Your task to perform on an android device: Open Wikipedia Image 0: 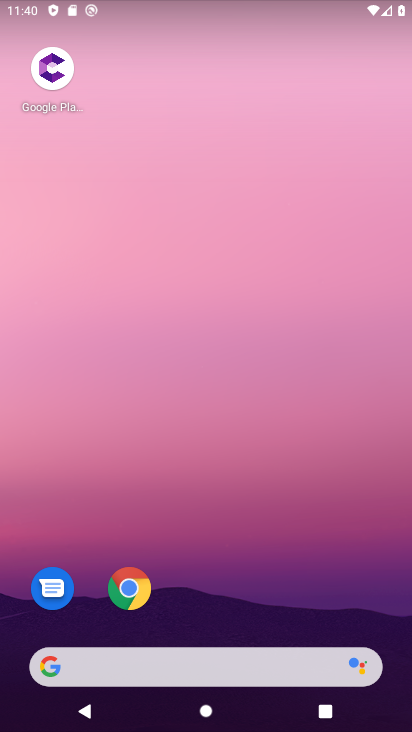
Step 0: click (131, 586)
Your task to perform on an android device: Open Wikipedia Image 1: 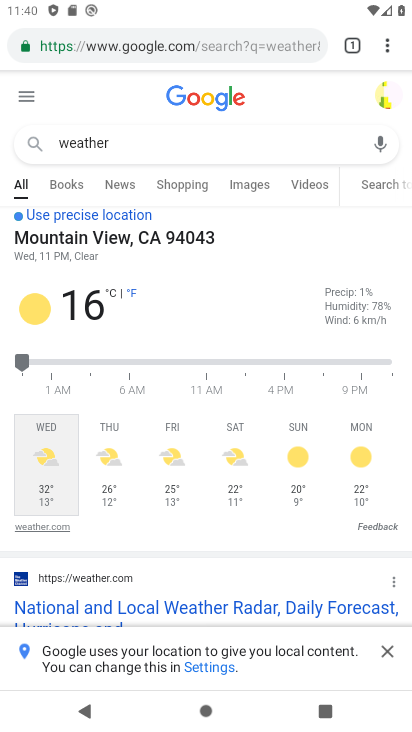
Step 1: click (80, 48)
Your task to perform on an android device: Open Wikipedia Image 2: 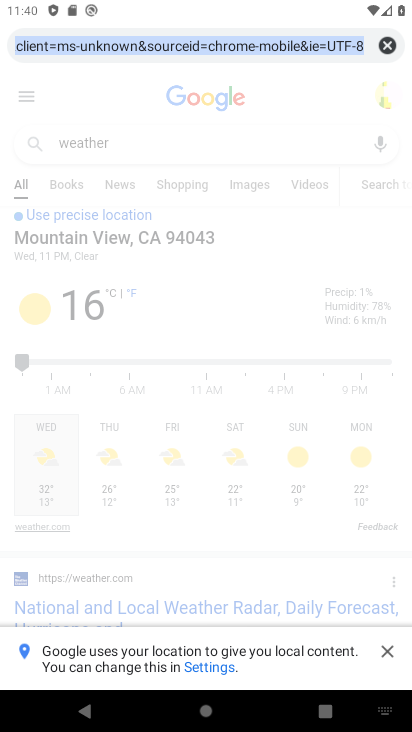
Step 2: type "wikipedia"
Your task to perform on an android device: Open Wikipedia Image 3: 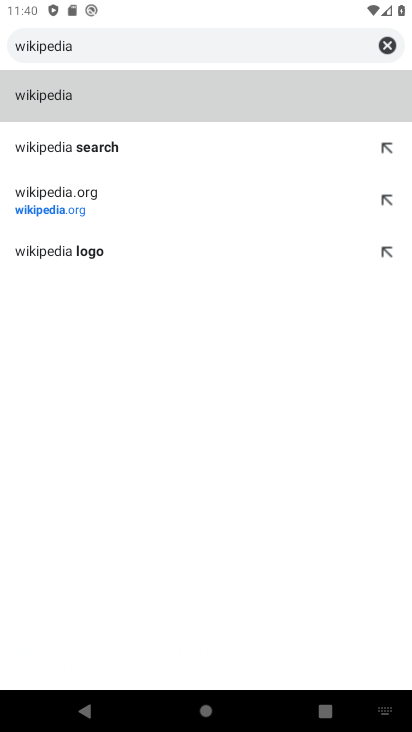
Step 3: click (153, 108)
Your task to perform on an android device: Open Wikipedia Image 4: 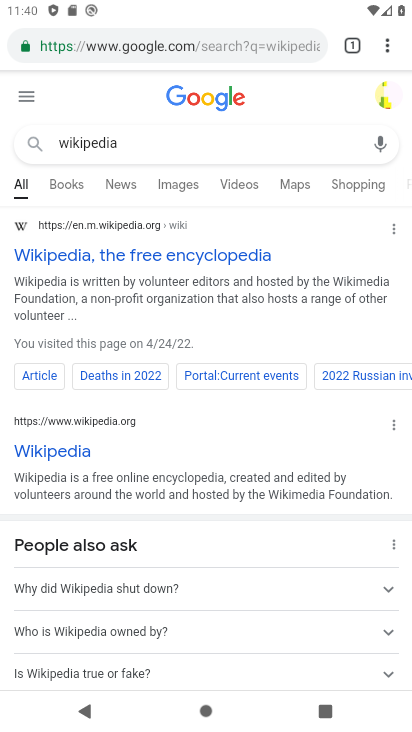
Step 4: task complete